Your task to perform on an android device: Open the phone app and click the voicemail tab. Image 0: 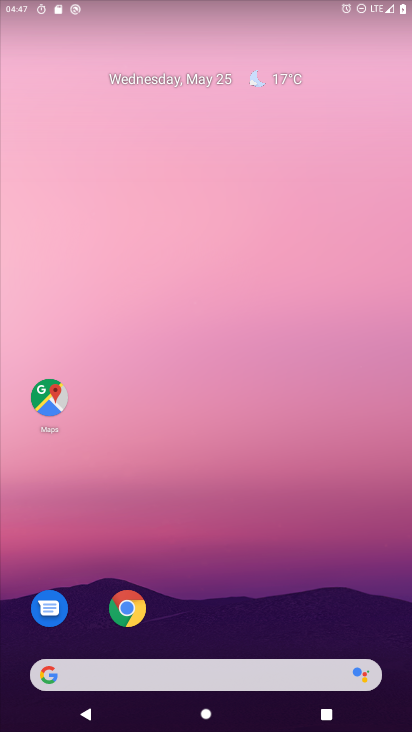
Step 0: drag from (265, 538) to (222, 147)
Your task to perform on an android device: Open the phone app and click the voicemail tab. Image 1: 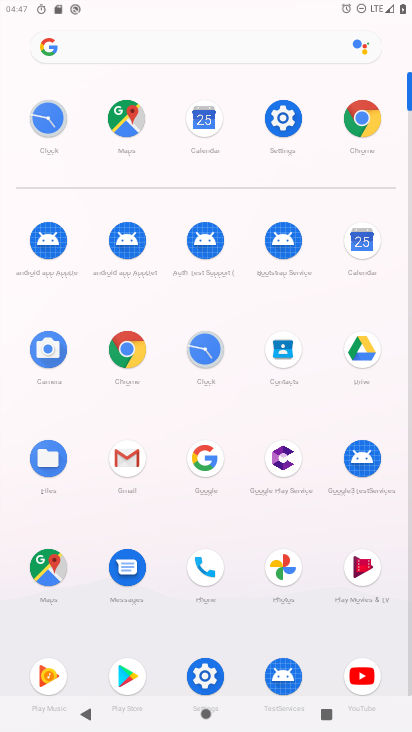
Step 1: click (199, 560)
Your task to perform on an android device: Open the phone app and click the voicemail tab. Image 2: 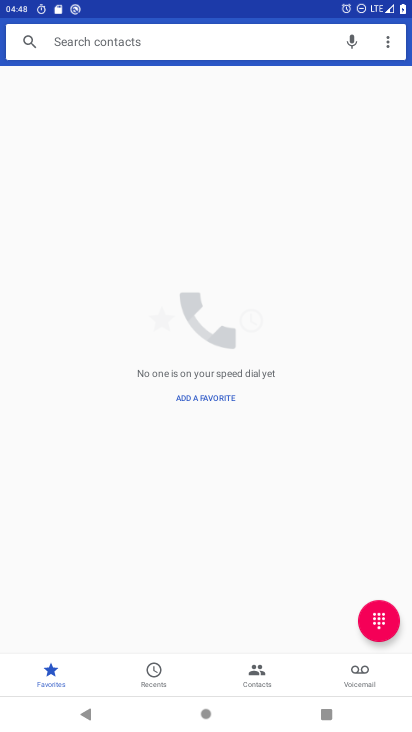
Step 2: click (369, 667)
Your task to perform on an android device: Open the phone app and click the voicemail tab. Image 3: 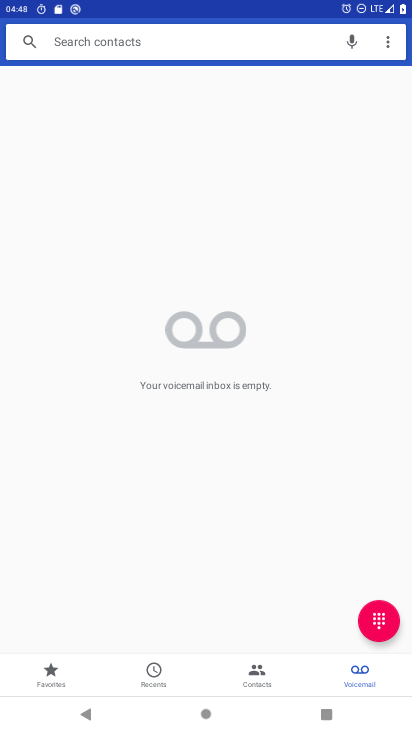
Step 3: task complete